Your task to perform on an android device: clear all cookies in the chrome app Image 0: 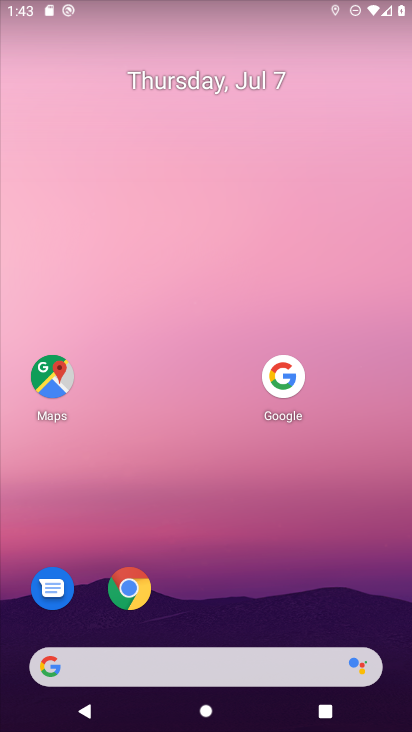
Step 0: click (134, 590)
Your task to perform on an android device: clear all cookies in the chrome app Image 1: 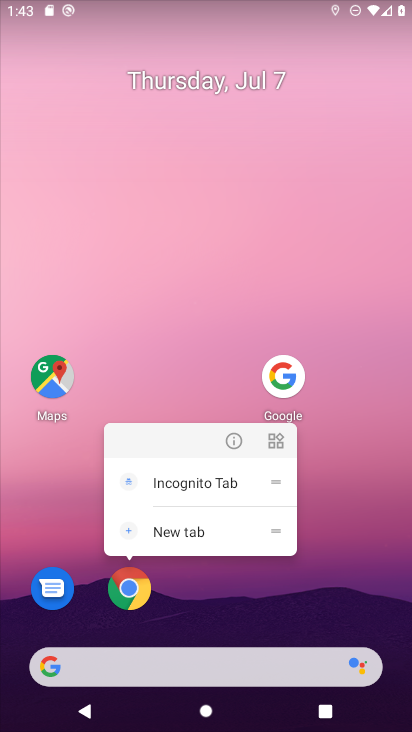
Step 1: click (130, 596)
Your task to perform on an android device: clear all cookies in the chrome app Image 2: 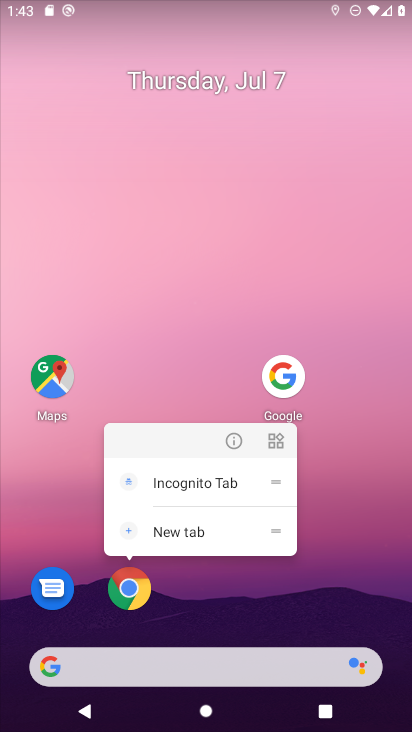
Step 2: click (133, 590)
Your task to perform on an android device: clear all cookies in the chrome app Image 3: 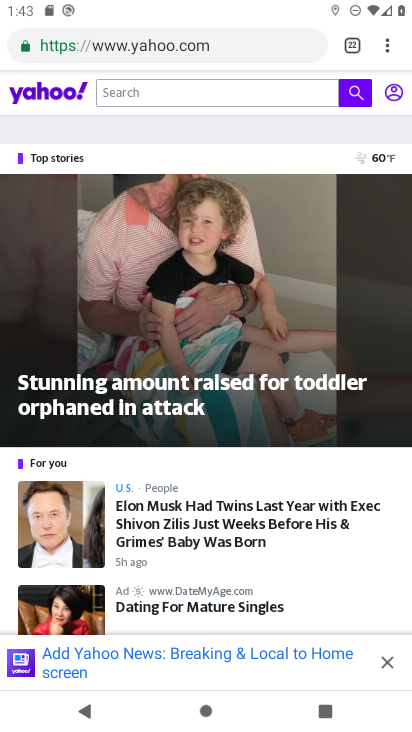
Step 3: drag from (390, 44) to (254, 553)
Your task to perform on an android device: clear all cookies in the chrome app Image 4: 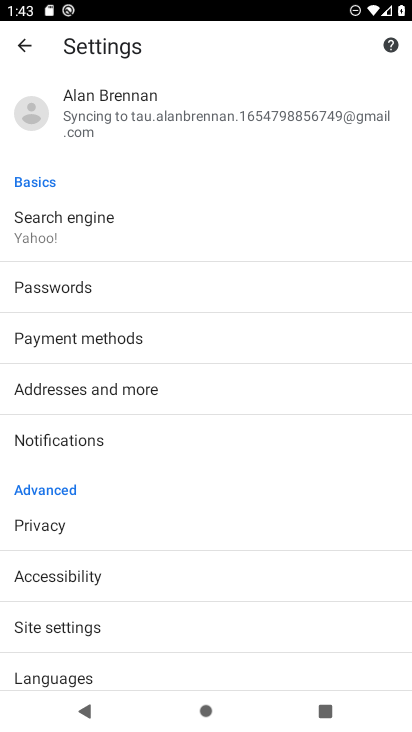
Step 4: click (52, 522)
Your task to perform on an android device: clear all cookies in the chrome app Image 5: 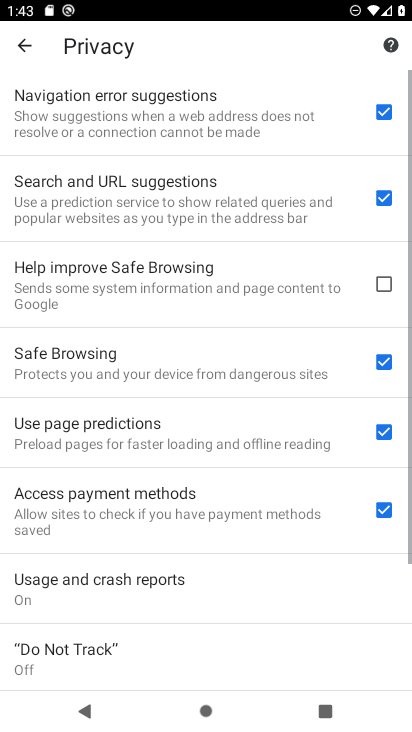
Step 5: drag from (248, 630) to (350, 113)
Your task to perform on an android device: clear all cookies in the chrome app Image 6: 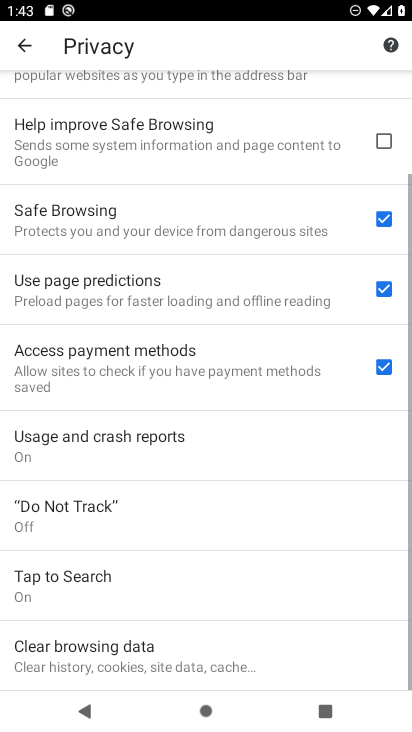
Step 6: click (169, 653)
Your task to perform on an android device: clear all cookies in the chrome app Image 7: 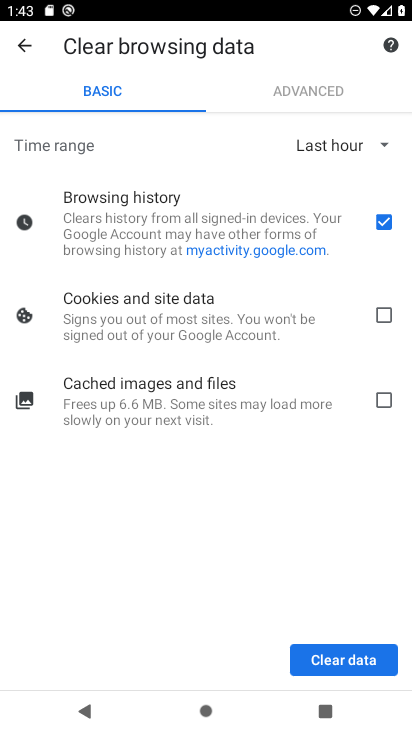
Step 7: click (391, 315)
Your task to perform on an android device: clear all cookies in the chrome app Image 8: 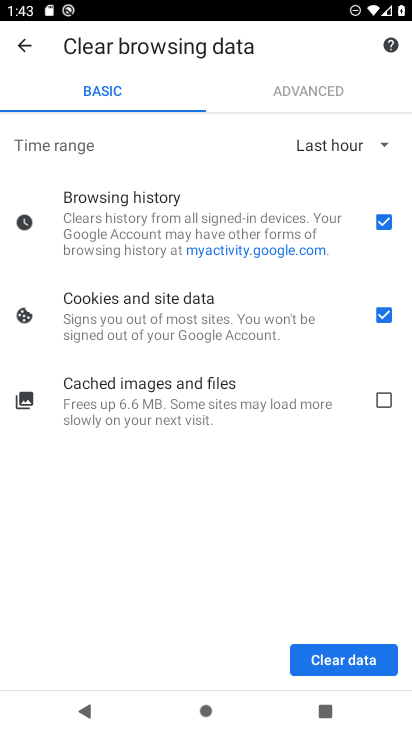
Step 8: click (368, 386)
Your task to perform on an android device: clear all cookies in the chrome app Image 9: 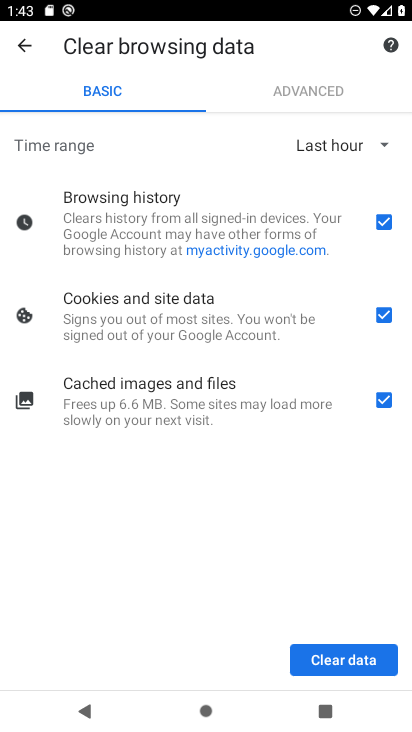
Step 9: click (347, 650)
Your task to perform on an android device: clear all cookies in the chrome app Image 10: 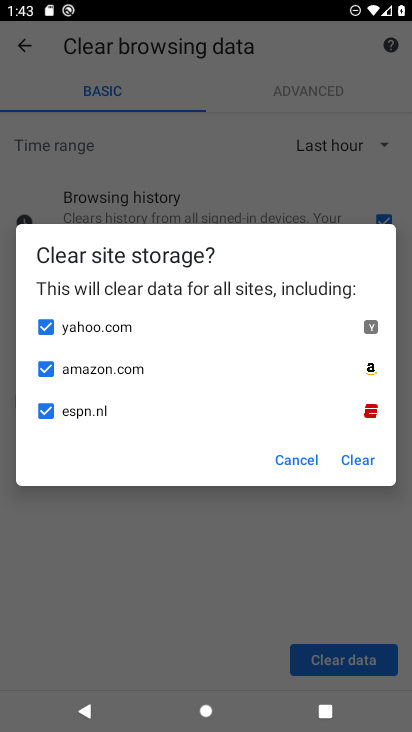
Step 10: click (365, 457)
Your task to perform on an android device: clear all cookies in the chrome app Image 11: 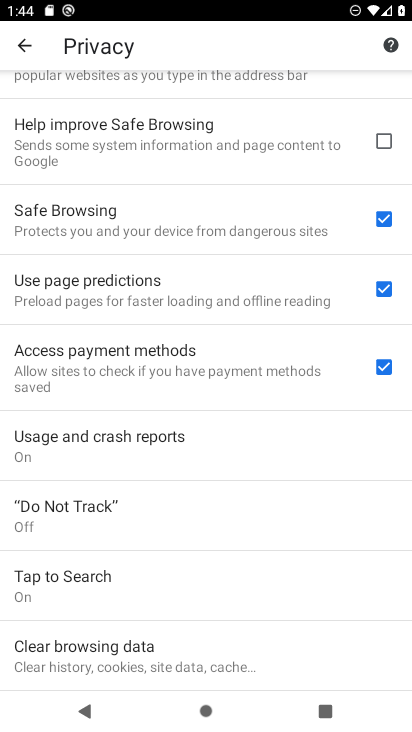
Step 11: task complete